Your task to perform on an android device: Find coffee shops on Maps Image 0: 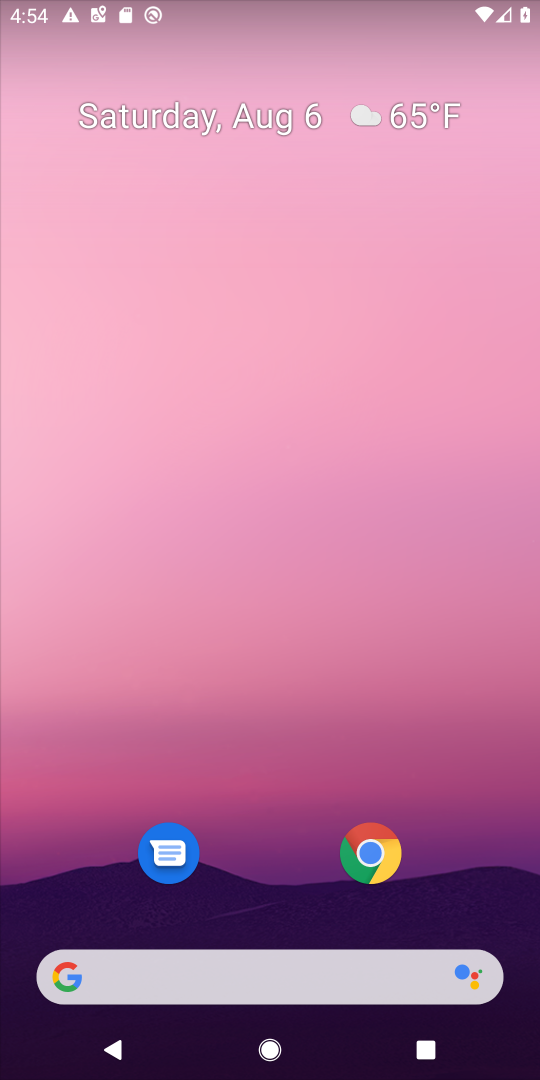
Step 0: drag from (215, 906) to (316, 144)
Your task to perform on an android device: Find coffee shops on Maps Image 1: 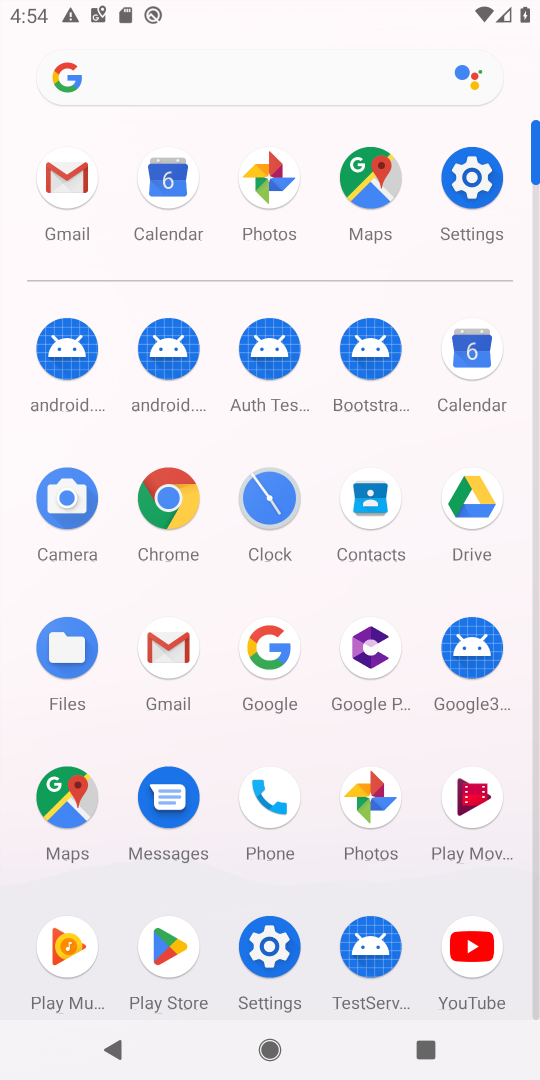
Step 1: click (375, 175)
Your task to perform on an android device: Find coffee shops on Maps Image 2: 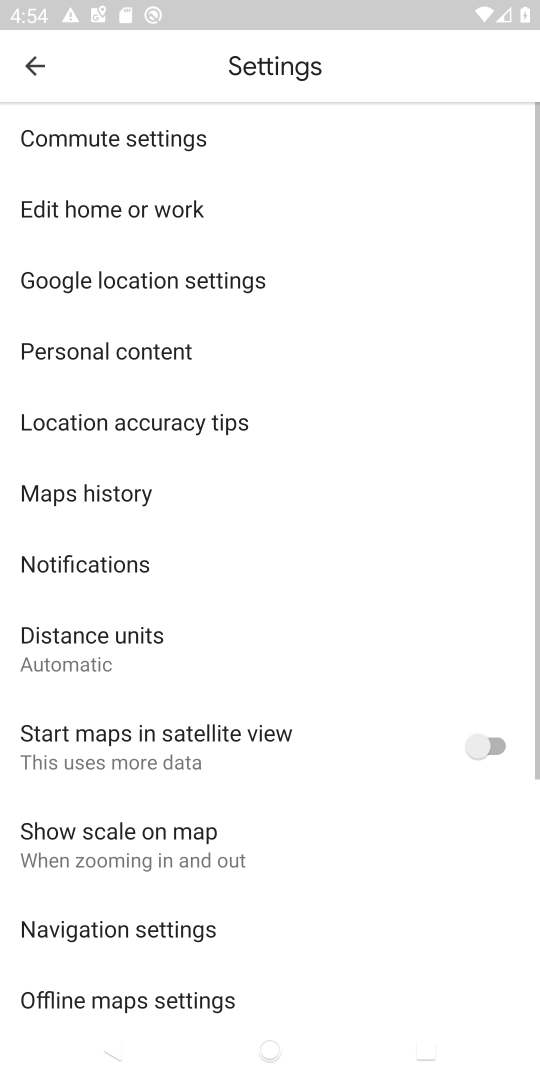
Step 2: click (27, 63)
Your task to perform on an android device: Find coffee shops on Maps Image 3: 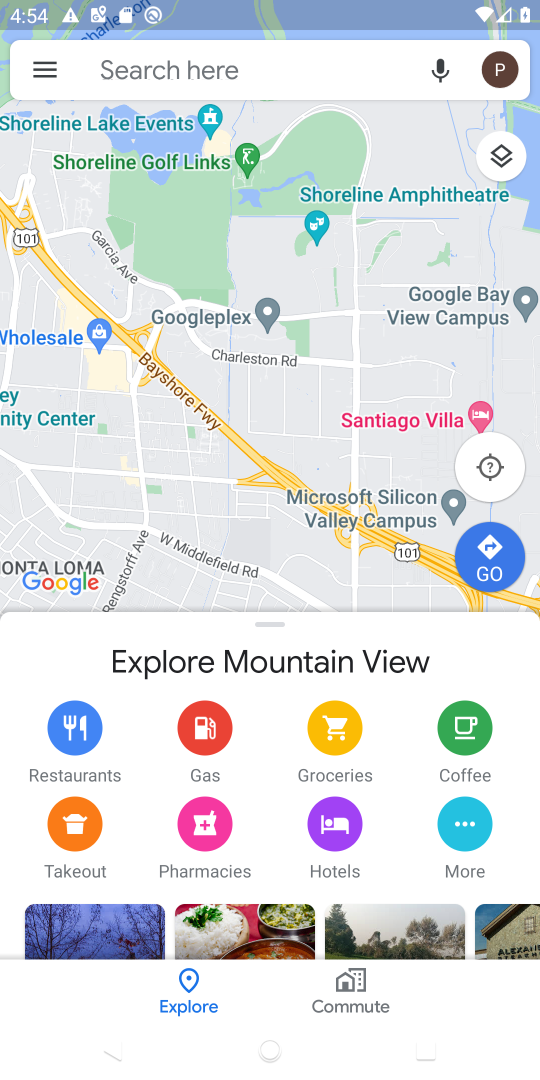
Step 3: click (234, 72)
Your task to perform on an android device: Find coffee shops on Maps Image 4: 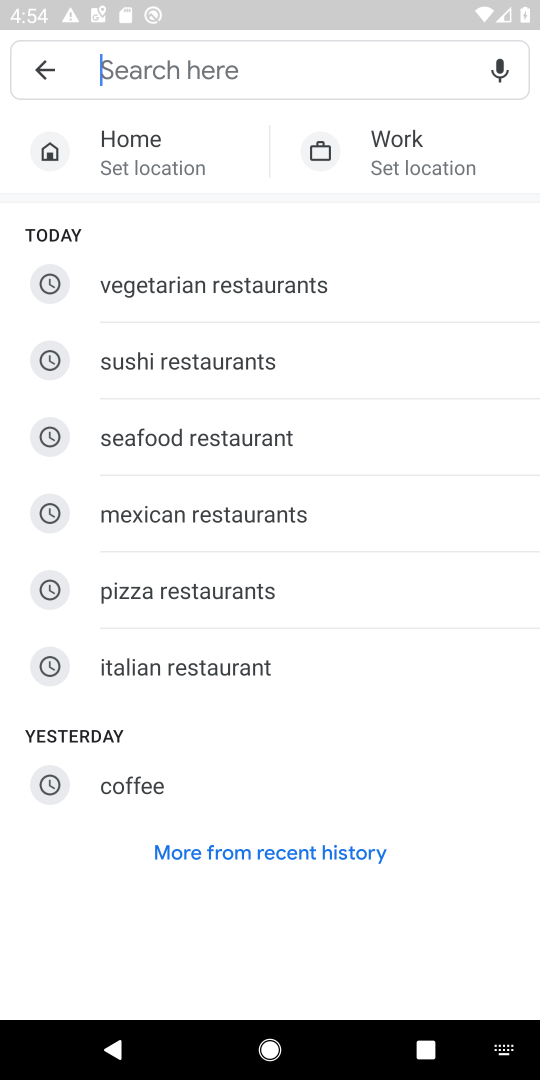
Step 4: click (123, 783)
Your task to perform on an android device: Find coffee shops on Maps Image 5: 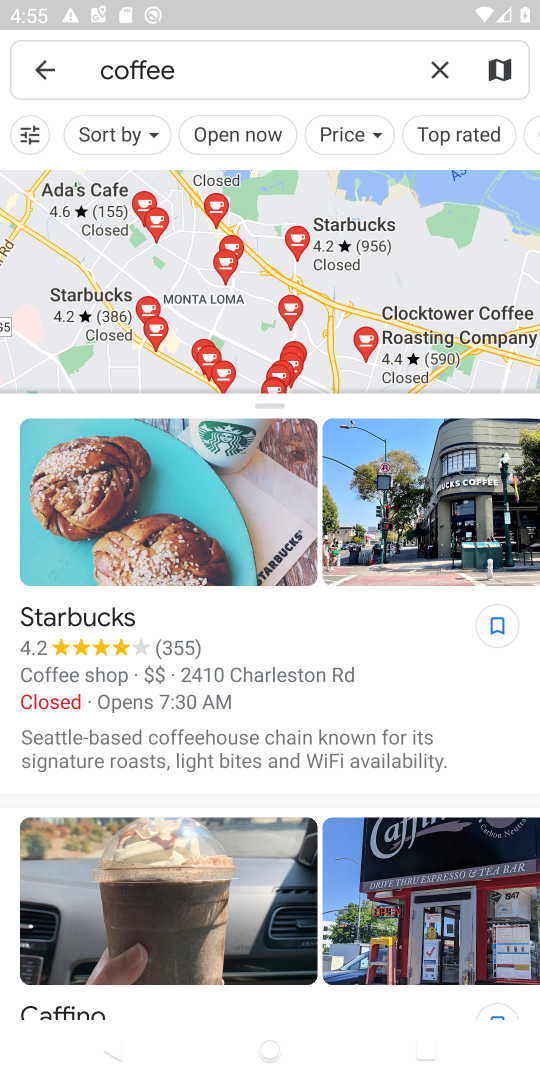
Step 5: task complete